Your task to perform on an android device: Show me popular games on the Play Store Image 0: 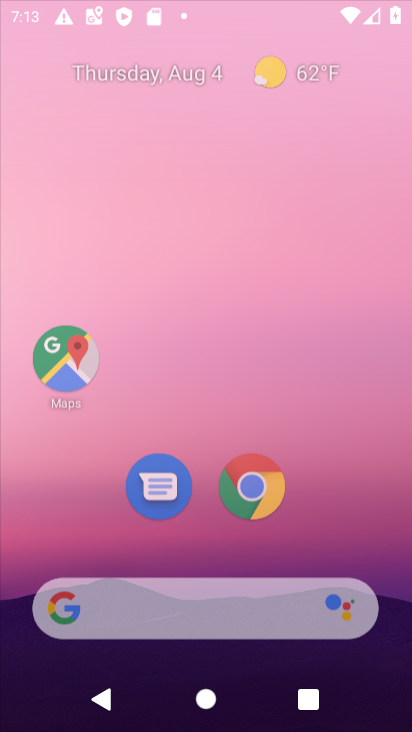
Step 0: drag from (370, 591) to (236, 38)
Your task to perform on an android device: Show me popular games on the Play Store Image 1: 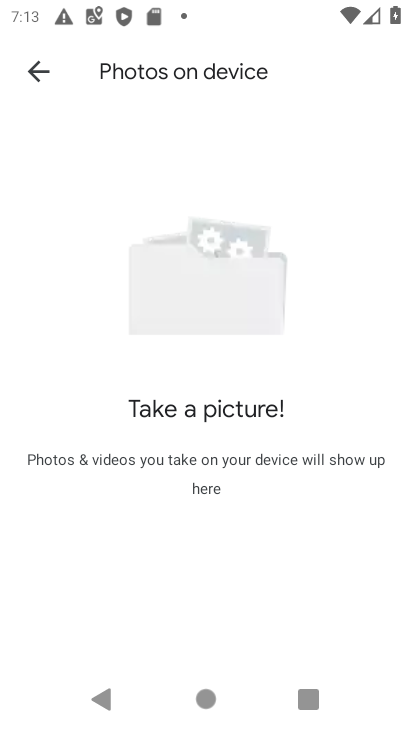
Step 1: press home button
Your task to perform on an android device: Show me popular games on the Play Store Image 2: 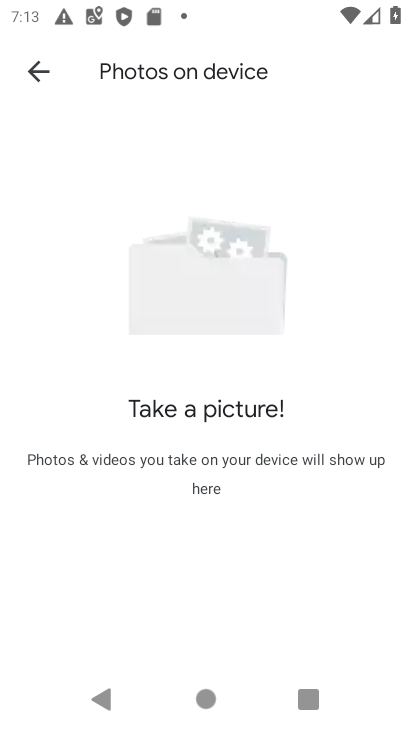
Step 2: drag from (393, 701) to (291, 81)
Your task to perform on an android device: Show me popular games on the Play Store Image 3: 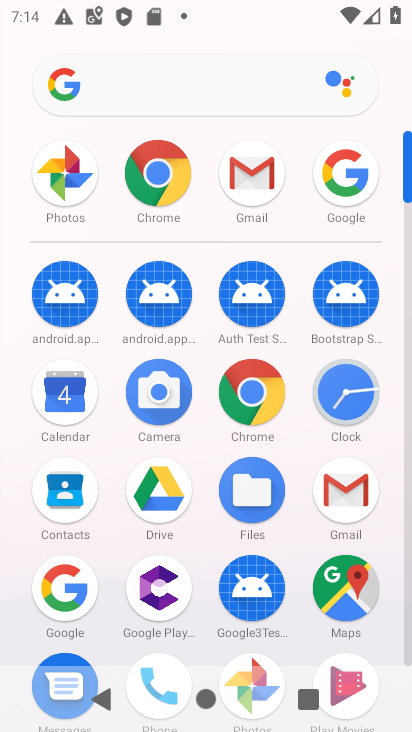
Step 3: drag from (207, 527) to (209, 137)
Your task to perform on an android device: Show me popular games on the Play Store Image 4: 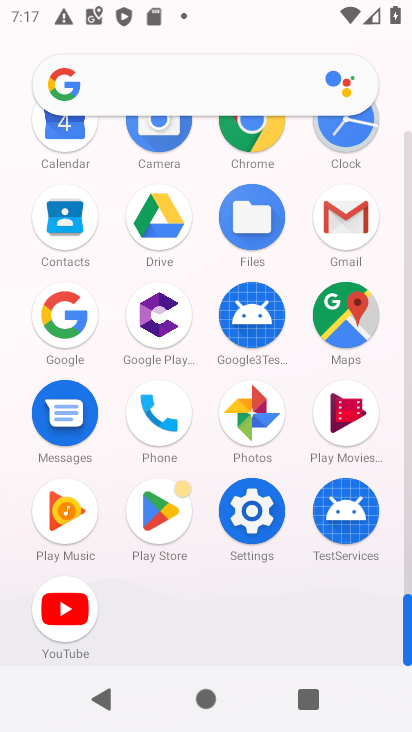
Step 4: click (162, 523)
Your task to perform on an android device: Show me popular games on the Play Store Image 5: 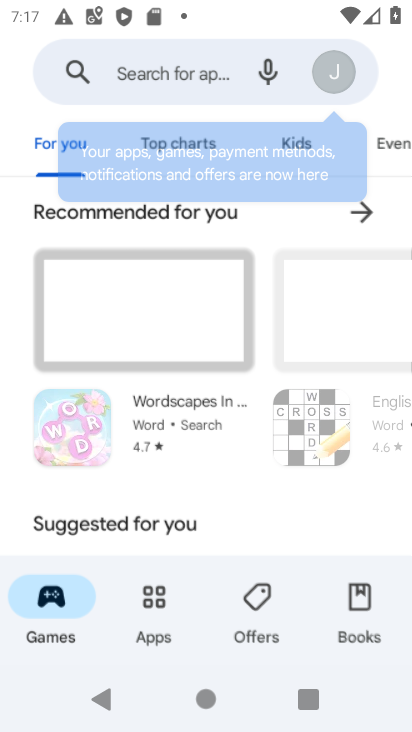
Step 5: task complete